Your task to perform on an android device: stop showing notifications on the lock screen Image 0: 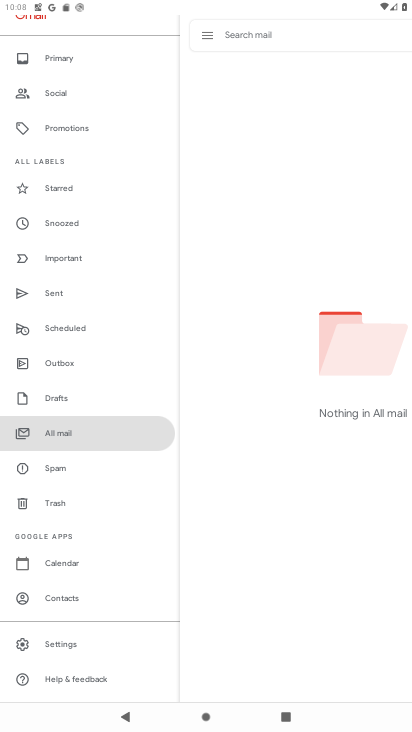
Step 0: press home button
Your task to perform on an android device: stop showing notifications on the lock screen Image 1: 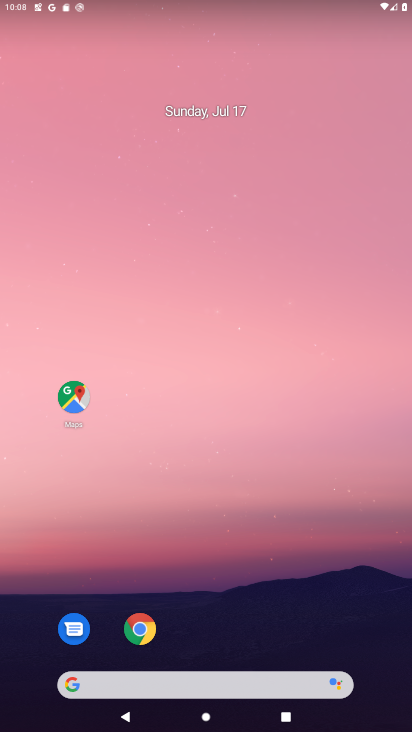
Step 1: drag from (167, 681) to (264, 128)
Your task to perform on an android device: stop showing notifications on the lock screen Image 2: 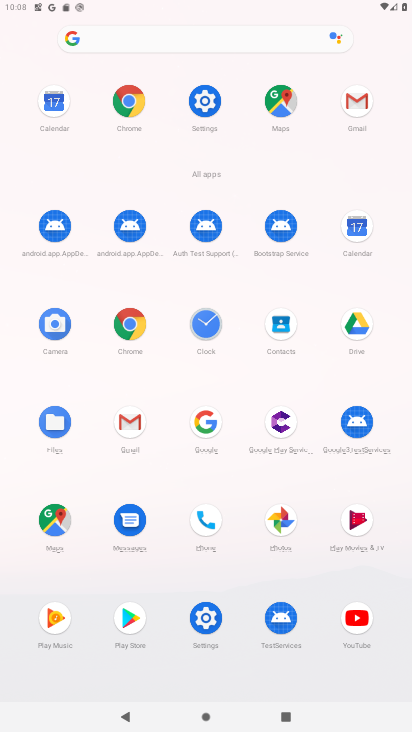
Step 2: click (204, 100)
Your task to perform on an android device: stop showing notifications on the lock screen Image 3: 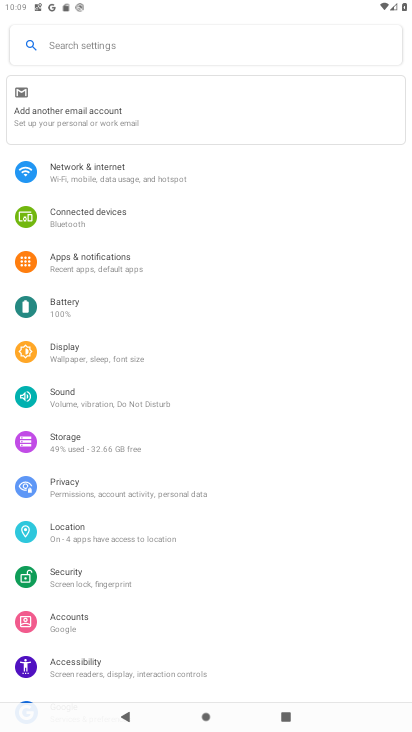
Step 3: click (102, 267)
Your task to perform on an android device: stop showing notifications on the lock screen Image 4: 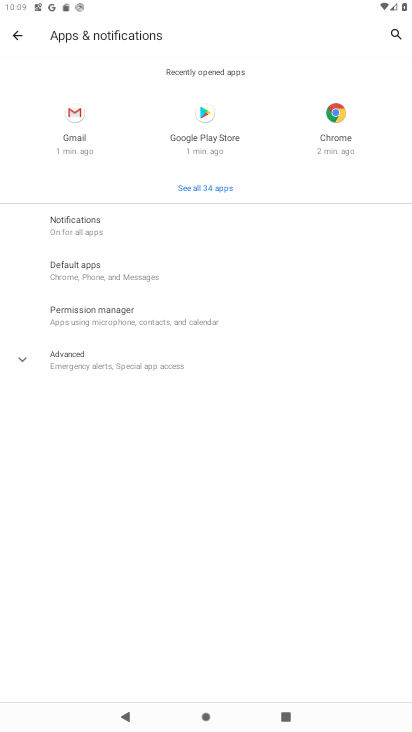
Step 4: click (87, 227)
Your task to perform on an android device: stop showing notifications on the lock screen Image 5: 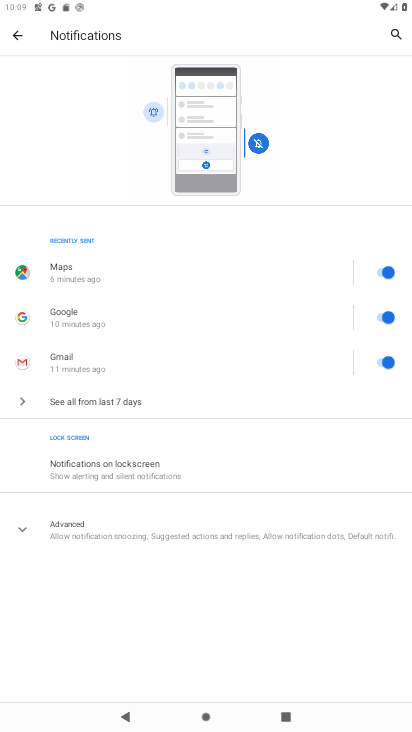
Step 5: click (104, 473)
Your task to perform on an android device: stop showing notifications on the lock screen Image 6: 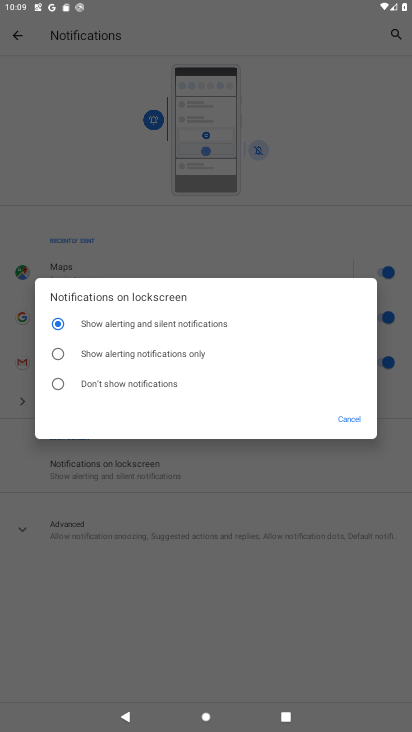
Step 6: click (59, 387)
Your task to perform on an android device: stop showing notifications on the lock screen Image 7: 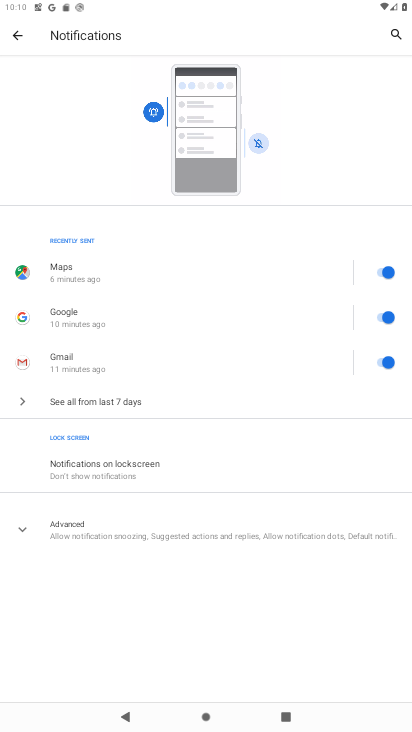
Step 7: task complete